Your task to perform on an android device: Open wifi settings Image 0: 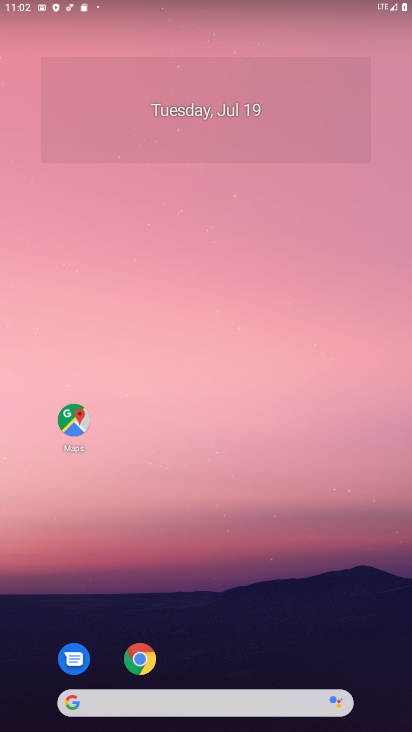
Step 0: drag from (212, 608) to (359, 155)
Your task to perform on an android device: Open wifi settings Image 1: 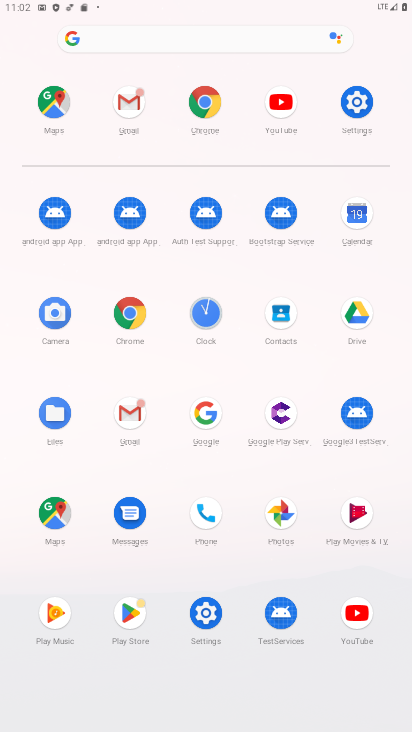
Step 1: click (199, 610)
Your task to perform on an android device: Open wifi settings Image 2: 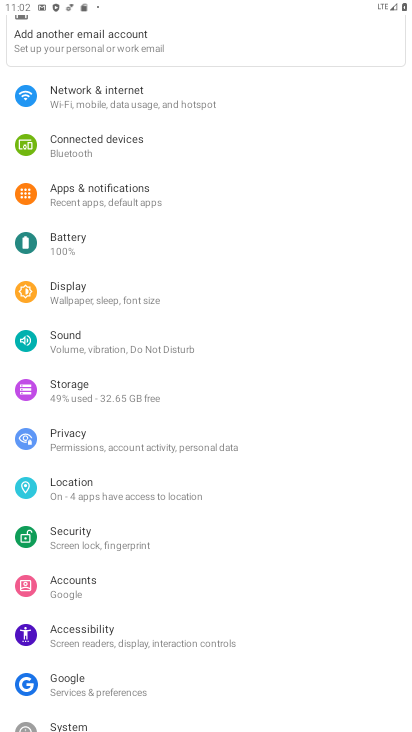
Step 2: click (124, 91)
Your task to perform on an android device: Open wifi settings Image 3: 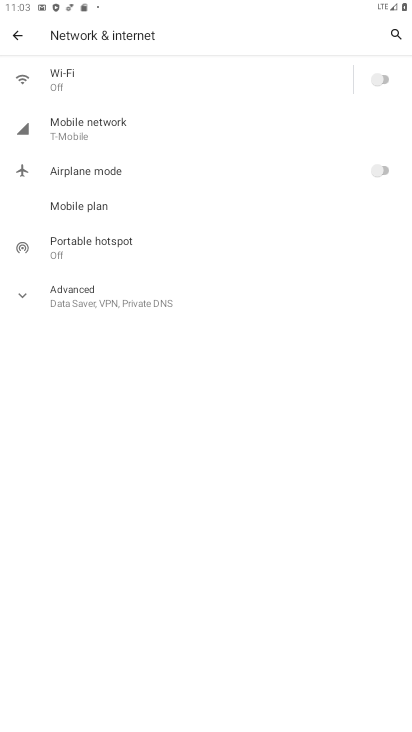
Step 3: task complete